Your task to perform on an android device: turn off sleep mode Image 0: 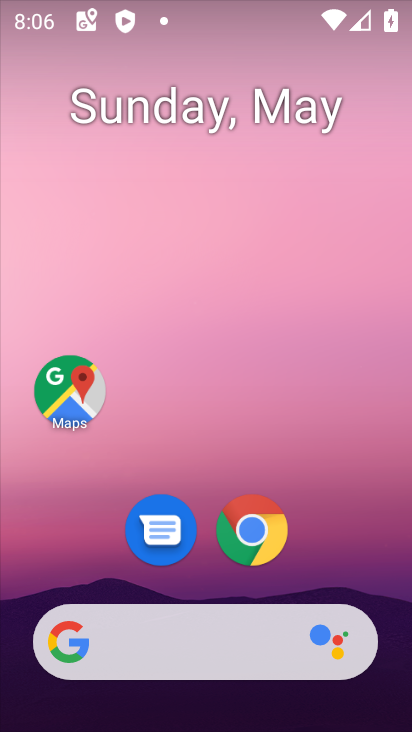
Step 0: drag from (368, 550) to (338, 26)
Your task to perform on an android device: turn off sleep mode Image 1: 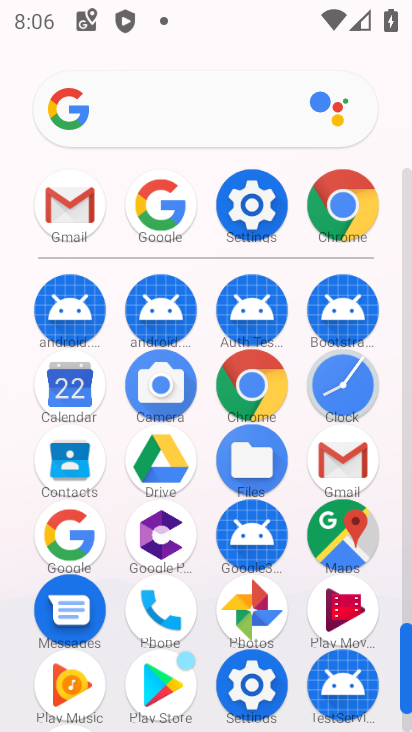
Step 1: click (254, 208)
Your task to perform on an android device: turn off sleep mode Image 2: 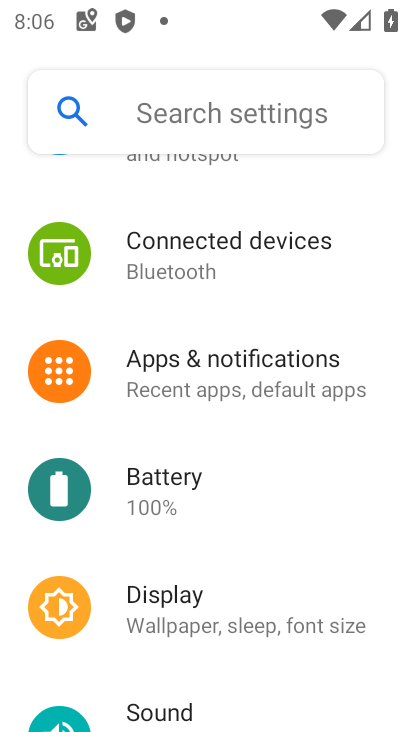
Step 2: click (159, 608)
Your task to perform on an android device: turn off sleep mode Image 3: 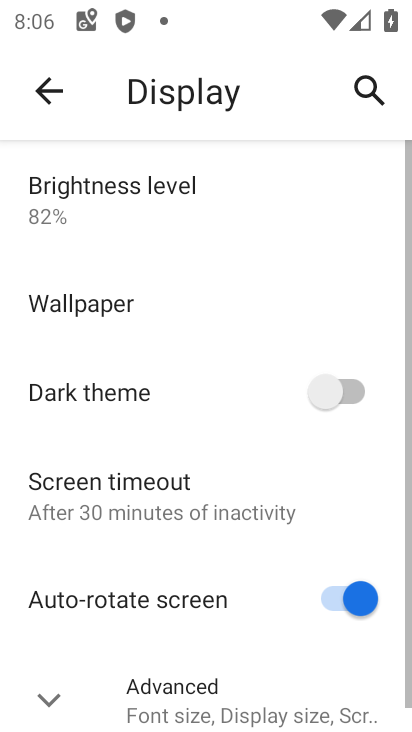
Step 3: drag from (161, 606) to (161, 201)
Your task to perform on an android device: turn off sleep mode Image 4: 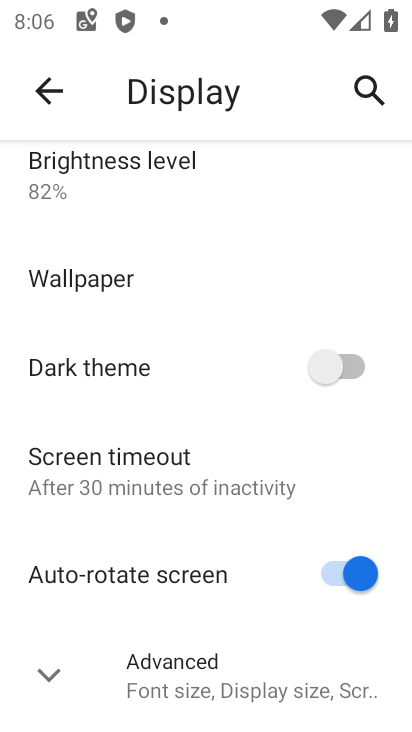
Step 4: click (49, 688)
Your task to perform on an android device: turn off sleep mode Image 5: 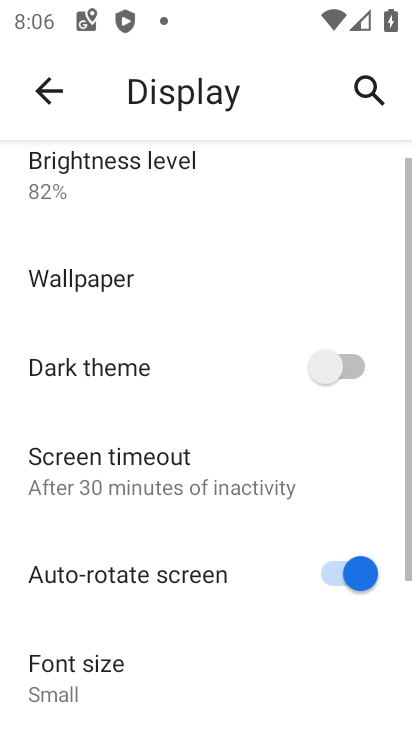
Step 5: task complete